Your task to perform on an android device: turn off javascript in the chrome app Image 0: 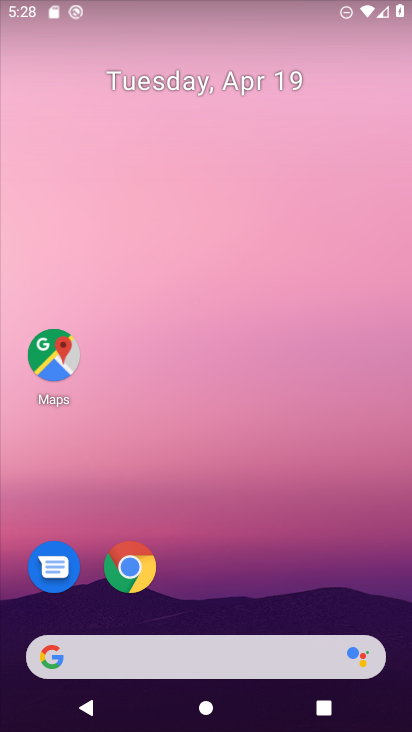
Step 0: drag from (307, 454) to (183, 11)
Your task to perform on an android device: turn off javascript in the chrome app Image 1: 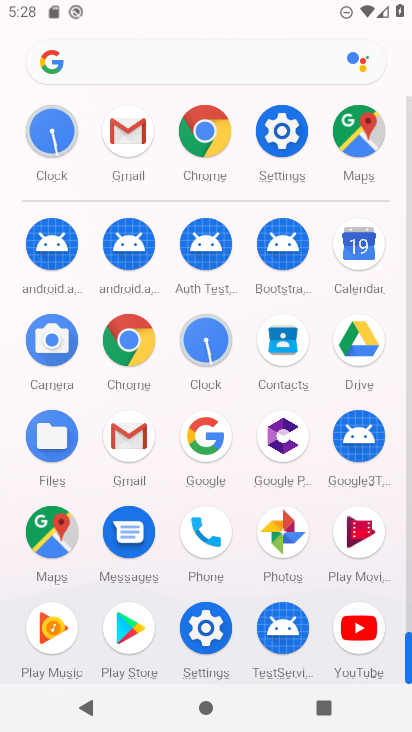
Step 1: click (132, 346)
Your task to perform on an android device: turn off javascript in the chrome app Image 2: 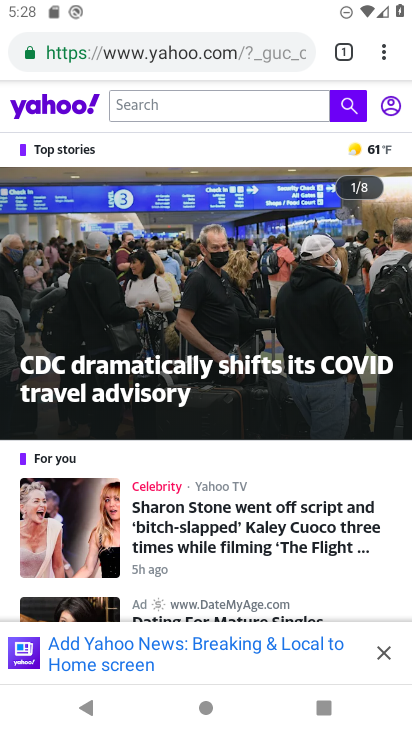
Step 2: click (380, 52)
Your task to perform on an android device: turn off javascript in the chrome app Image 3: 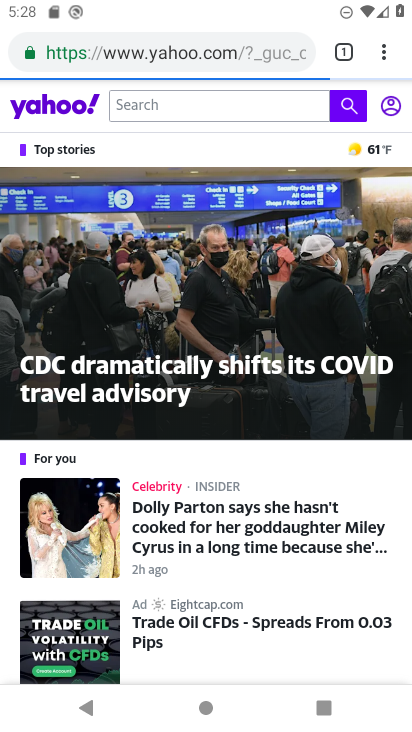
Step 3: drag from (388, 55) to (216, 616)
Your task to perform on an android device: turn off javascript in the chrome app Image 4: 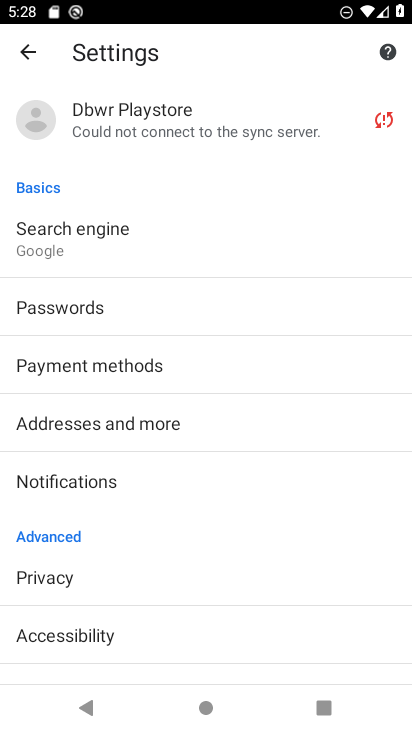
Step 4: drag from (191, 545) to (184, 194)
Your task to perform on an android device: turn off javascript in the chrome app Image 5: 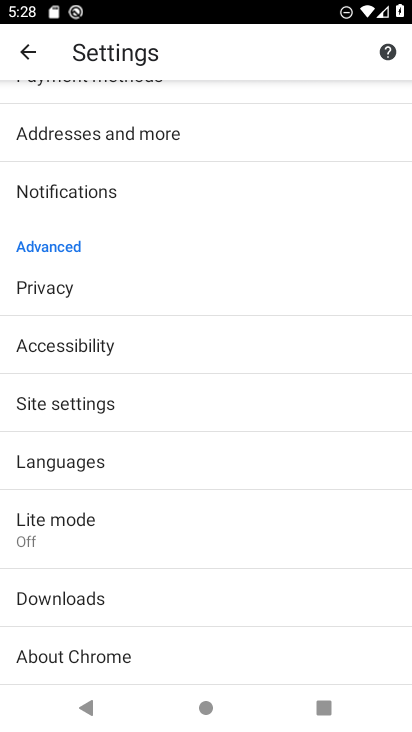
Step 5: click (136, 393)
Your task to perform on an android device: turn off javascript in the chrome app Image 6: 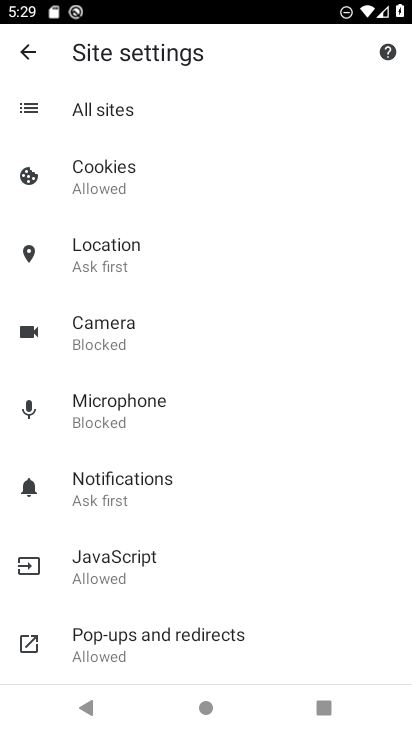
Step 6: click (147, 560)
Your task to perform on an android device: turn off javascript in the chrome app Image 7: 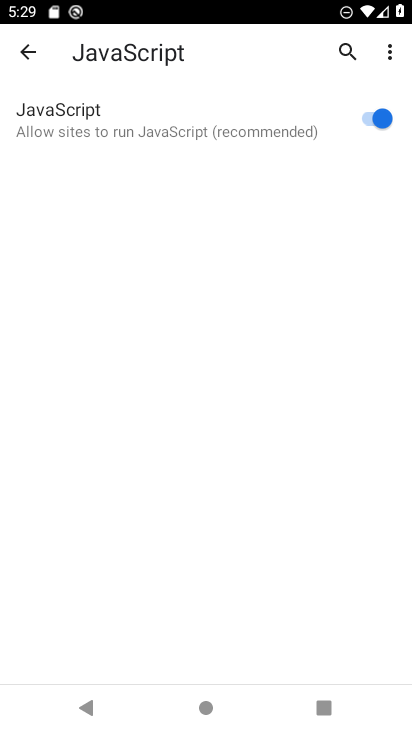
Step 7: click (361, 113)
Your task to perform on an android device: turn off javascript in the chrome app Image 8: 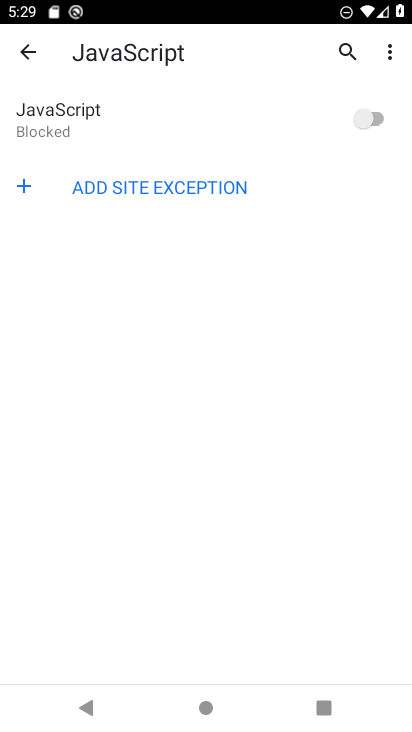
Step 8: task complete